Your task to perform on an android device: change notification settings in the gmail app Image 0: 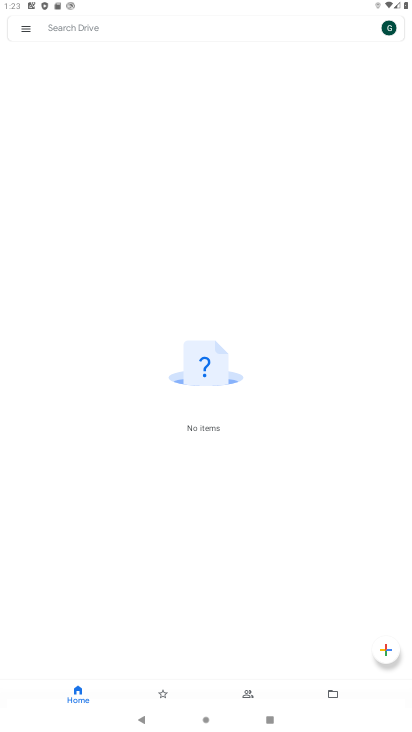
Step 0: press home button
Your task to perform on an android device: change notification settings in the gmail app Image 1: 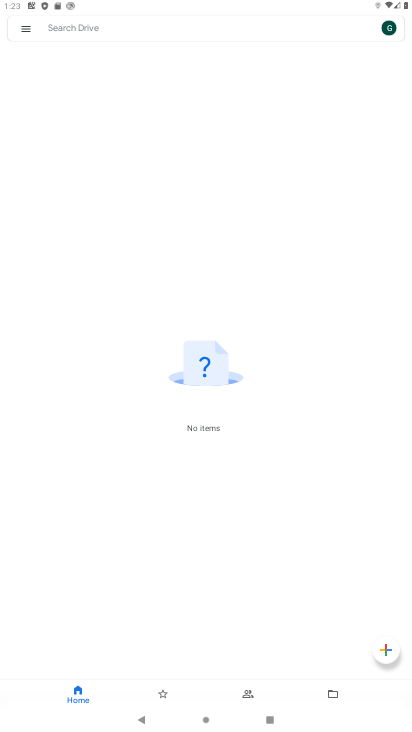
Step 1: press home button
Your task to perform on an android device: change notification settings in the gmail app Image 2: 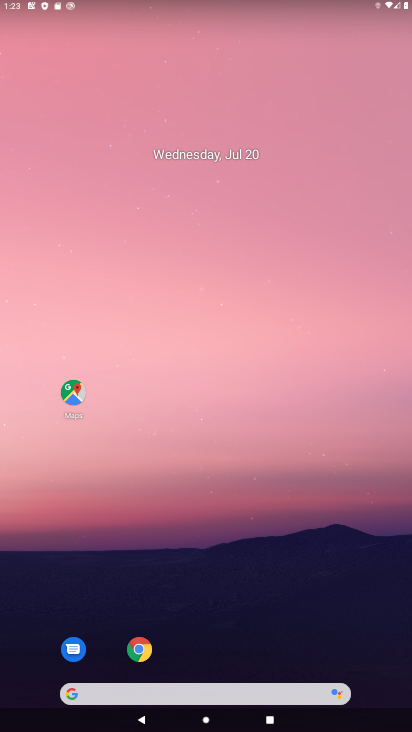
Step 2: drag from (348, 629) to (339, 80)
Your task to perform on an android device: change notification settings in the gmail app Image 3: 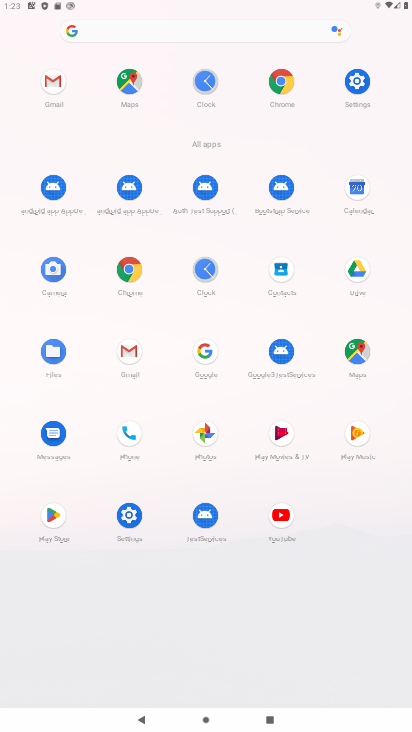
Step 3: click (151, 347)
Your task to perform on an android device: change notification settings in the gmail app Image 4: 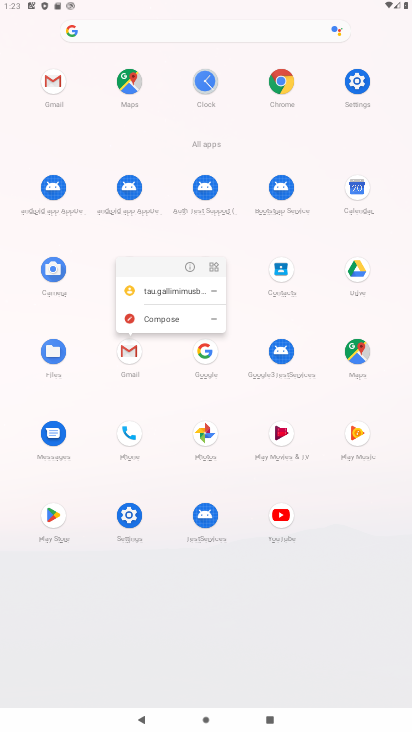
Step 4: click (192, 269)
Your task to perform on an android device: change notification settings in the gmail app Image 5: 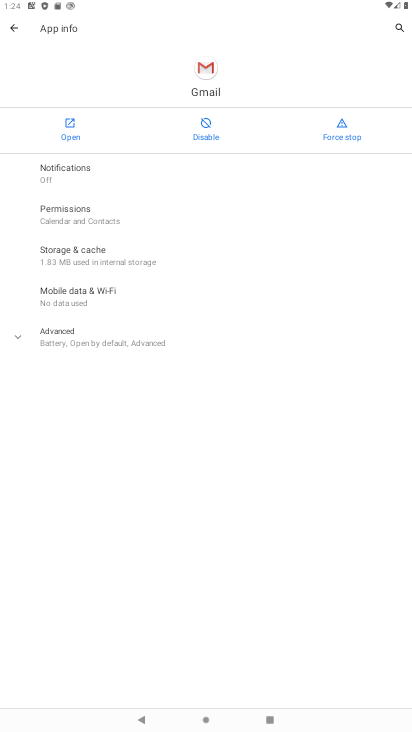
Step 5: click (91, 182)
Your task to perform on an android device: change notification settings in the gmail app Image 6: 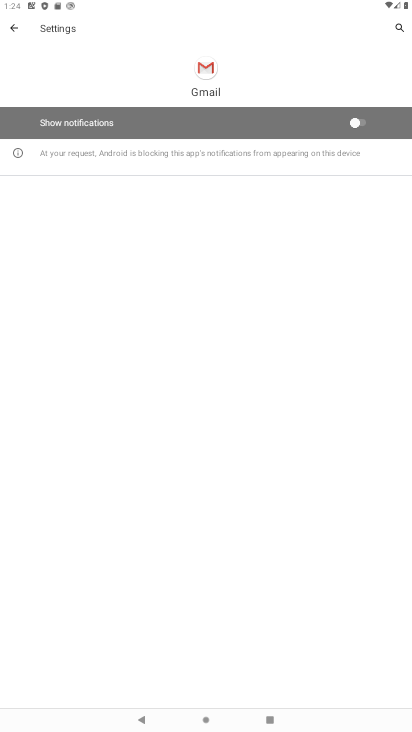
Step 6: click (270, 122)
Your task to perform on an android device: change notification settings in the gmail app Image 7: 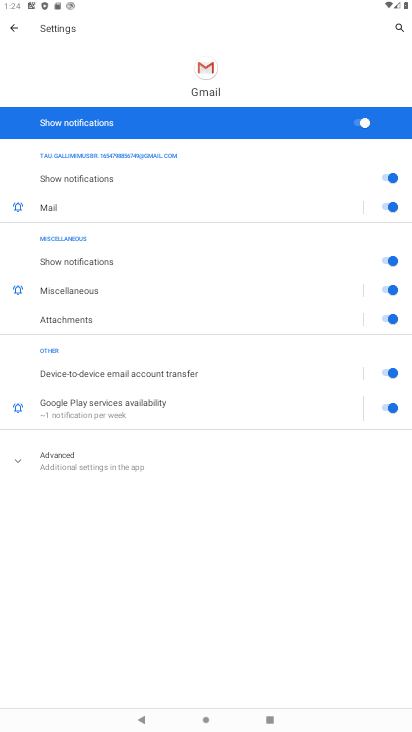
Step 7: task complete